Your task to perform on an android device: Open calendar and show me the second week of next month Image 0: 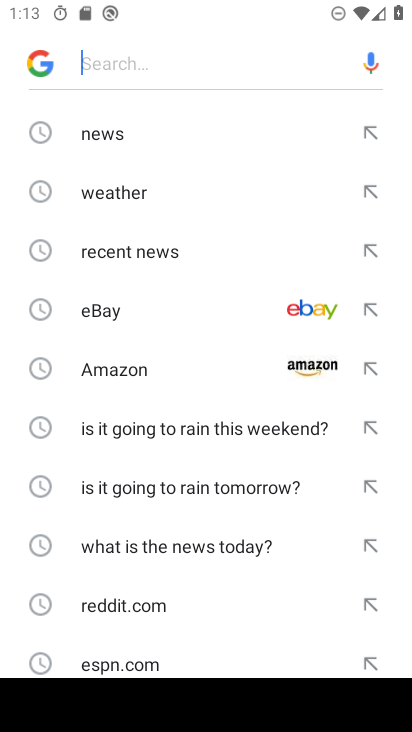
Step 0: press home button
Your task to perform on an android device: Open calendar and show me the second week of next month Image 1: 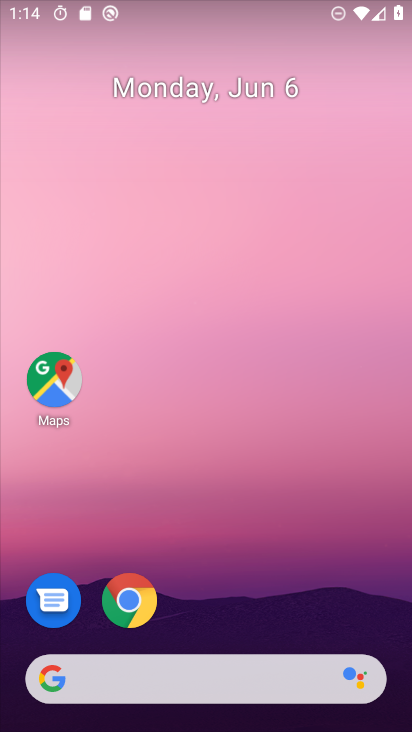
Step 1: drag from (260, 645) to (246, 224)
Your task to perform on an android device: Open calendar and show me the second week of next month Image 2: 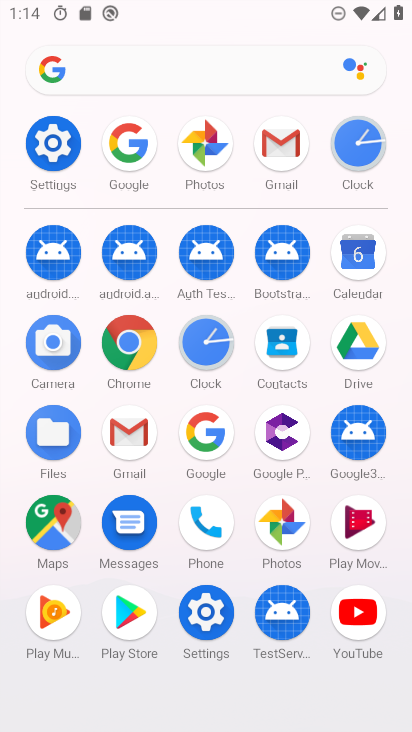
Step 2: click (336, 263)
Your task to perform on an android device: Open calendar and show me the second week of next month Image 3: 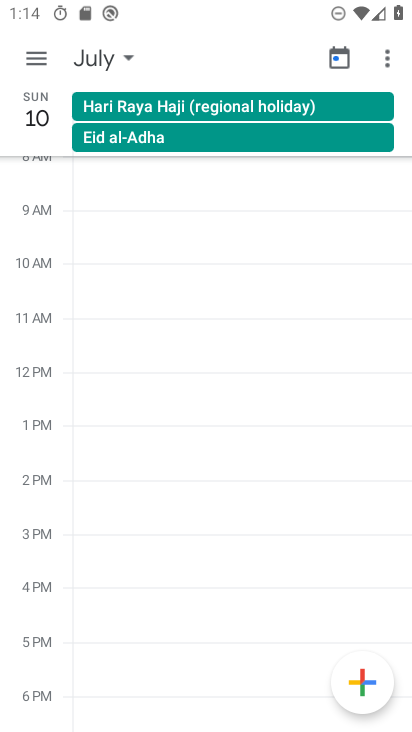
Step 3: click (111, 51)
Your task to perform on an android device: Open calendar and show me the second week of next month Image 4: 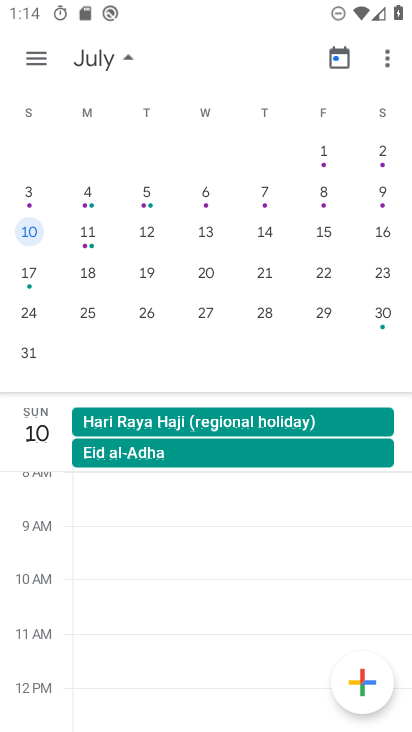
Step 4: click (33, 190)
Your task to perform on an android device: Open calendar and show me the second week of next month Image 5: 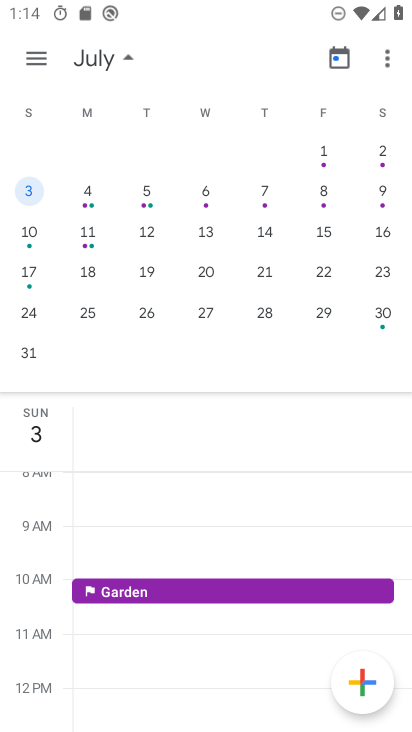
Step 5: task complete